Your task to perform on an android device: turn off wifi Image 0: 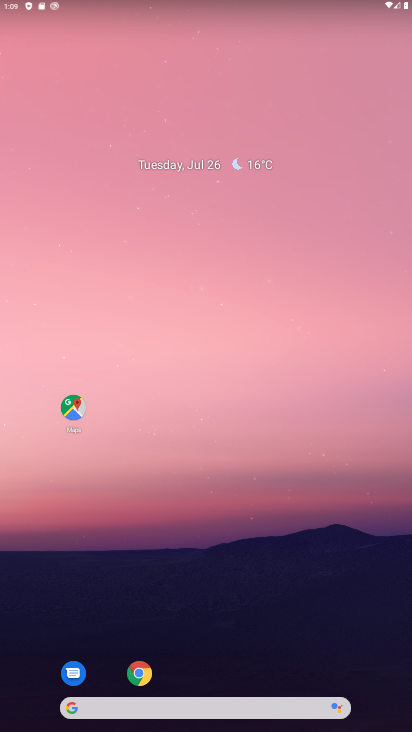
Step 0: drag from (206, 727) to (191, 78)
Your task to perform on an android device: turn off wifi Image 1: 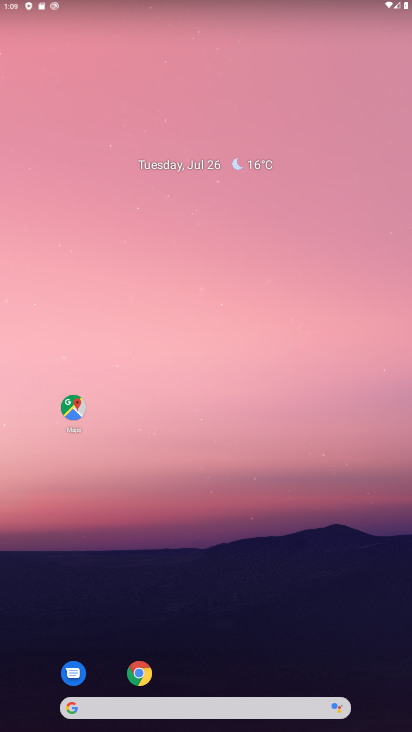
Step 1: drag from (242, 714) to (237, 348)
Your task to perform on an android device: turn off wifi Image 2: 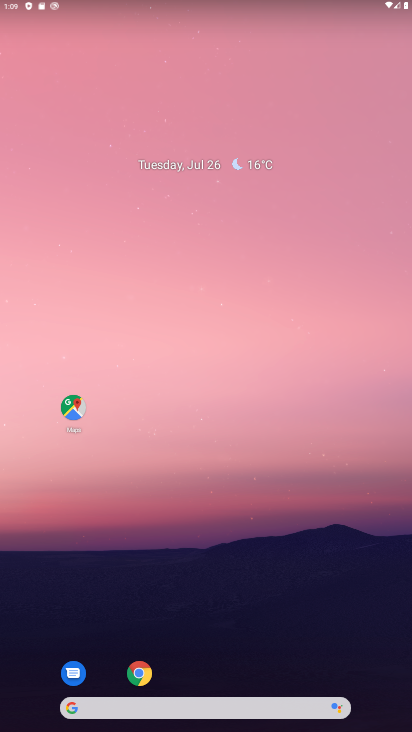
Step 2: drag from (215, 711) to (214, 160)
Your task to perform on an android device: turn off wifi Image 3: 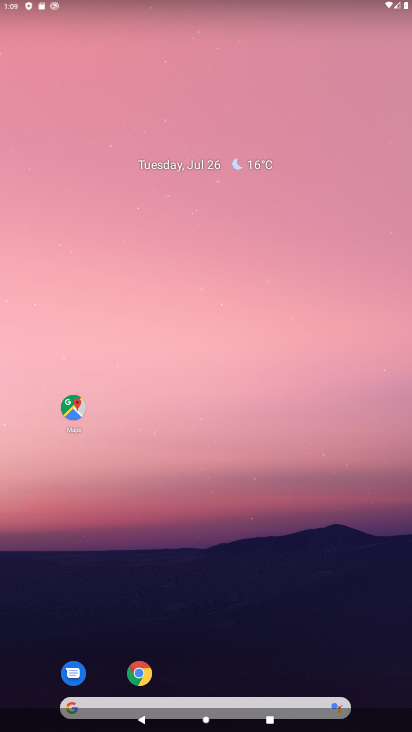
Step 3: drag from (215, 714) to (209, 158)
Your task to perform on an android device: turn off wifi Image 4: 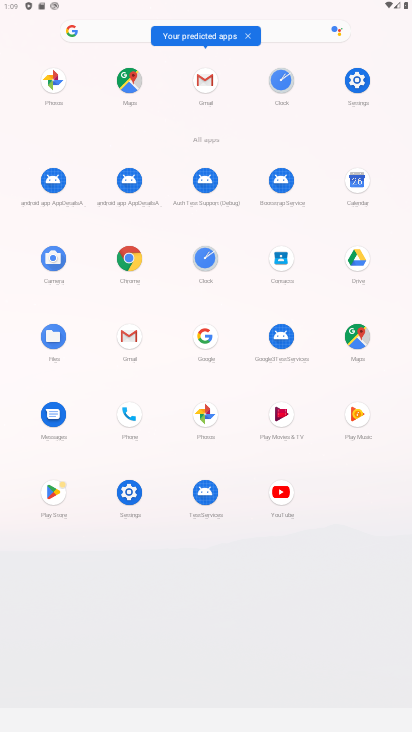
Step 4: click (346, 83)
Your task to perform on an android device: turn off wifi Image 5: 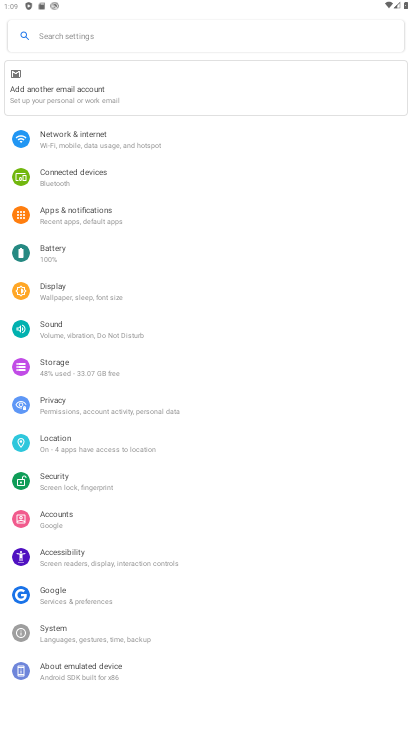
Step 5: click (67, 138)
Your task to perform on an android device: turn off wifi Image 6: 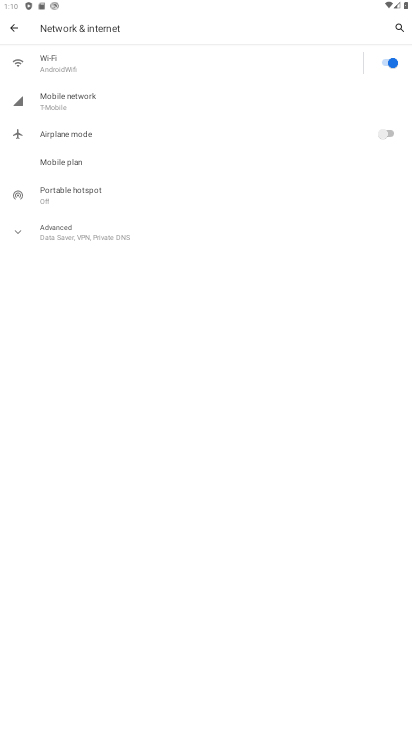
Step 6: click (386, 56)
Your task to perform on an android device: turn off wifi Image 7: 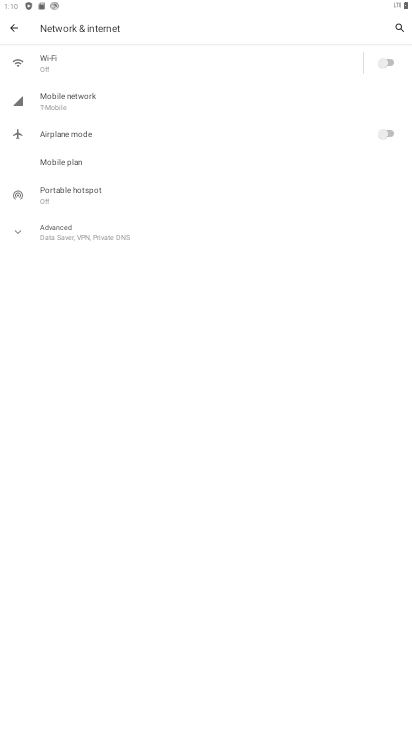
Step 7: task complete